Your task to perform on an android device: Go to CNN.com Image 0: 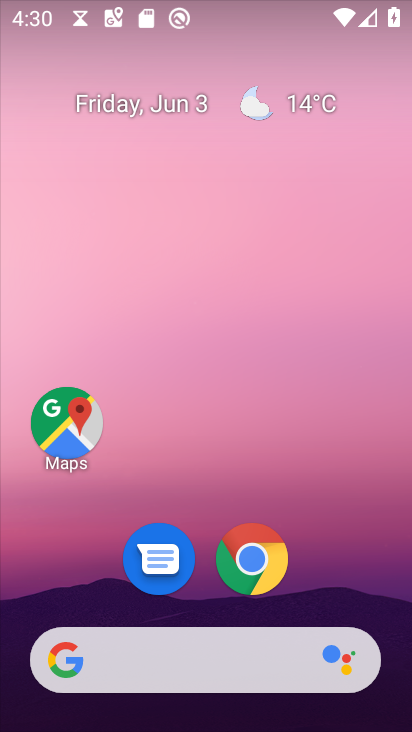
Step 0: click (132, 10)
Your task to perform on an android device: Go to CNN.com Image 1: 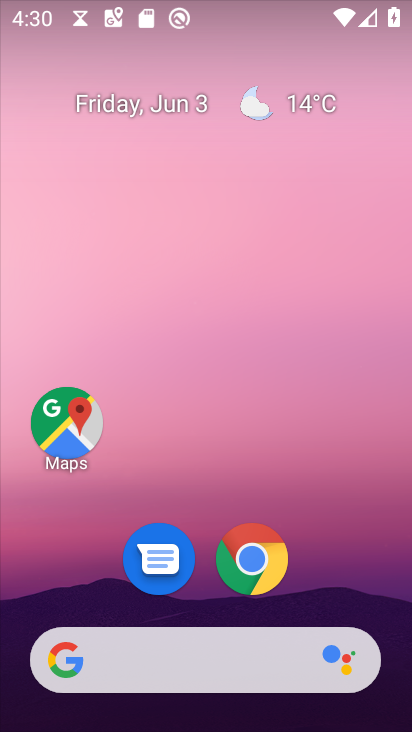
Step 1: drag from (216, 454) to (118, 9)
Your task to perform on an android device: Go to CNN.com Image 2: 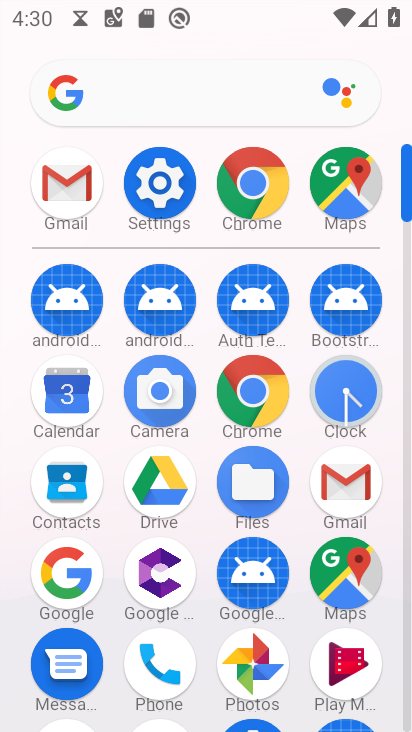
Step 2: click (122, 39)
Your task to perform on an android device: Go to CNN.com Image 3: 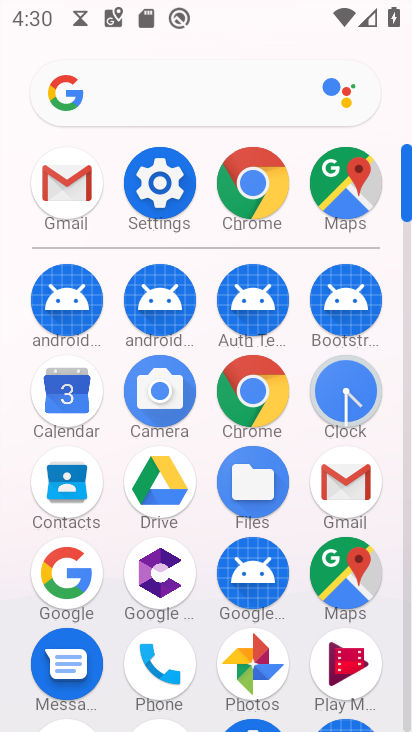
Step 3: click (259, 175)
Your task to perform on an android device: Go to CNN.com Image 4: 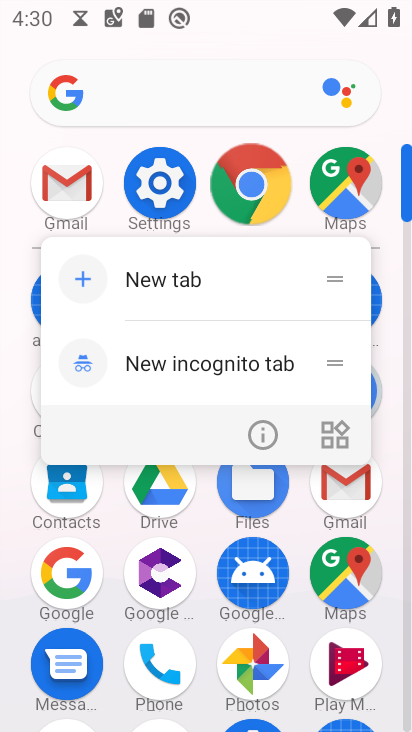
Step 4: click (250, 186)
Your task to perform on an android device: Go to CNN.com Image 5: 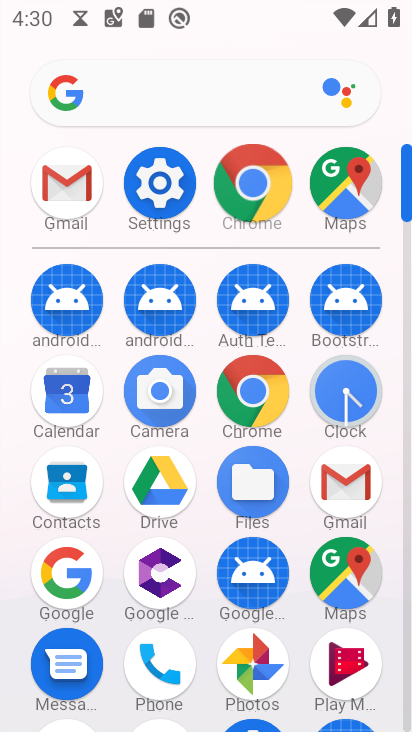
Step 5: click (246, 185)
Your task to perform on an android device: Go to CNN.com Image 6: 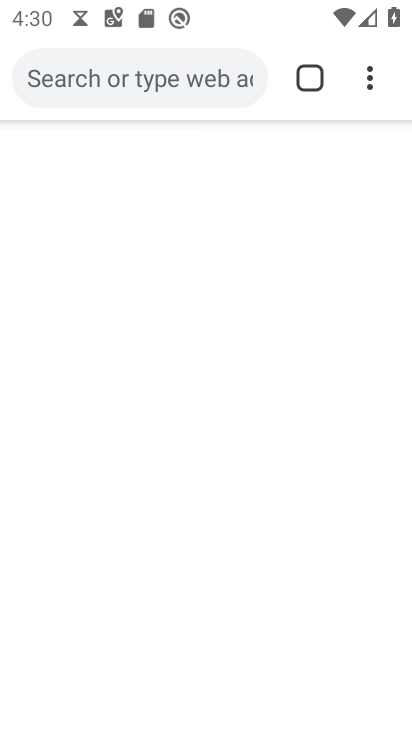
Step 6: click (246, 185)
Your task to perform on an android device: Go to CNN.com Image 7: 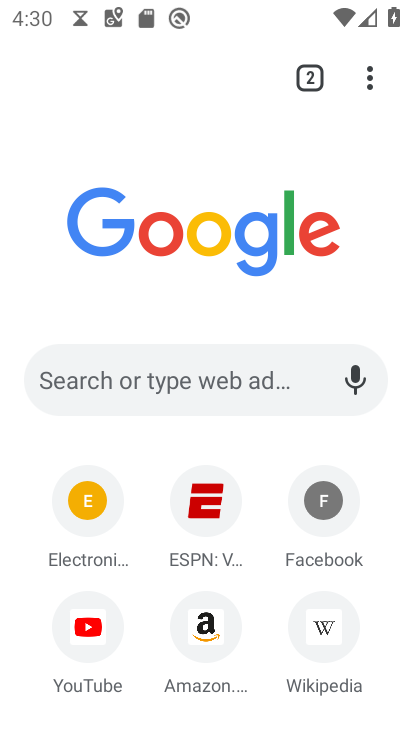
Step 7: click (67, 380)
Your task to perform on an android device: Go to CNN.com Image 8: 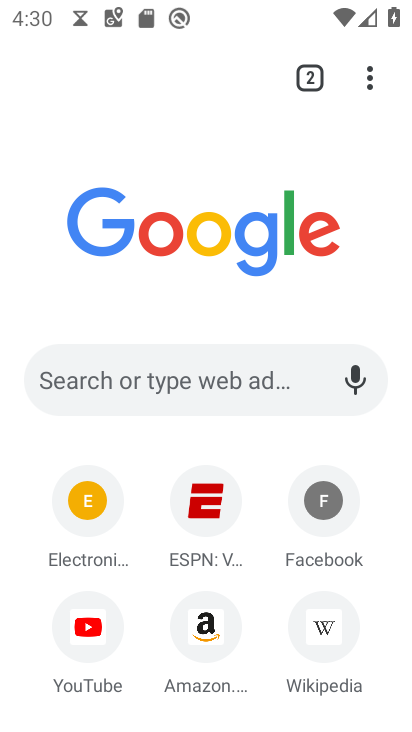
Step 8: click (67, 380)
Your task to perform on an android device: Go to CNN.com Image 9: 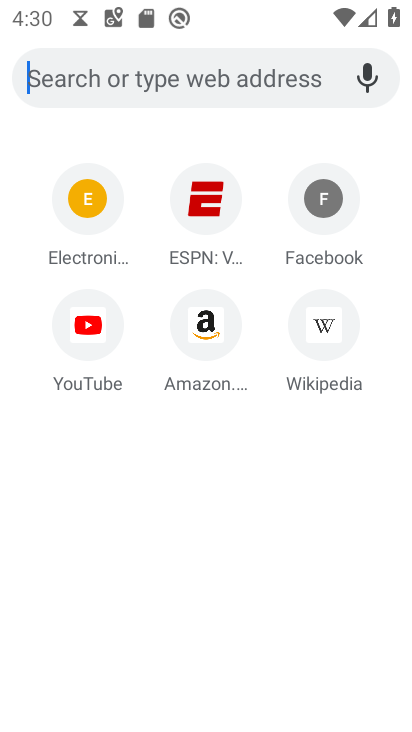
Step 9: click (61, 379)
Your task to perform on an android device: Go to CNN.com Image 10: 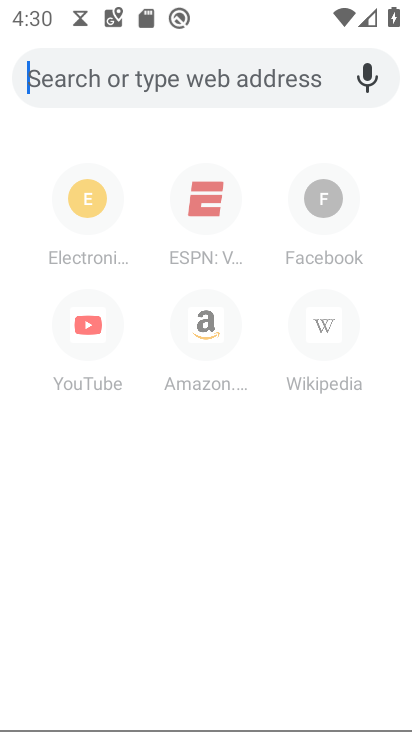
Step 10: click (57, 394)
Your task to perform on an android device: Go to CNN.com Image 11: 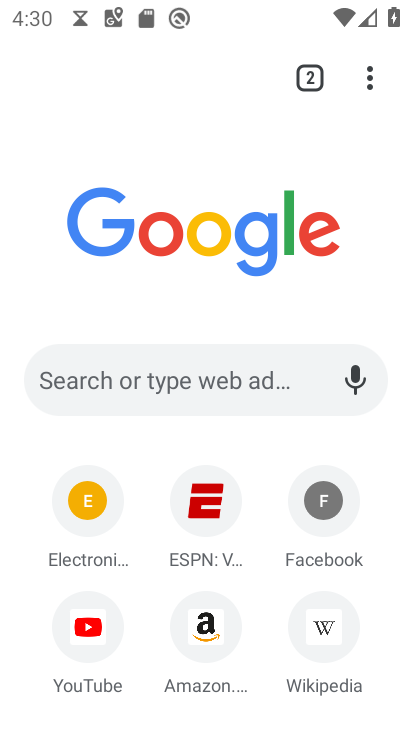
Step 11: click (42, 380)
Your task to perform on an android device: Go to CNN.com Image 12: 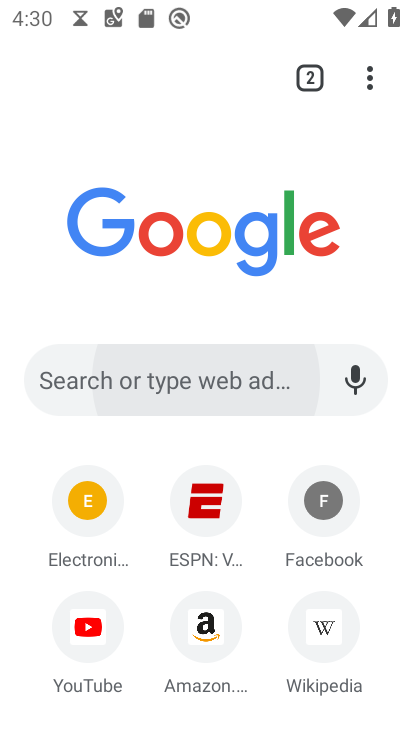
Step 12: click (42, 380)
Your task to perform on an android device: Go to CNN.com Image 13: 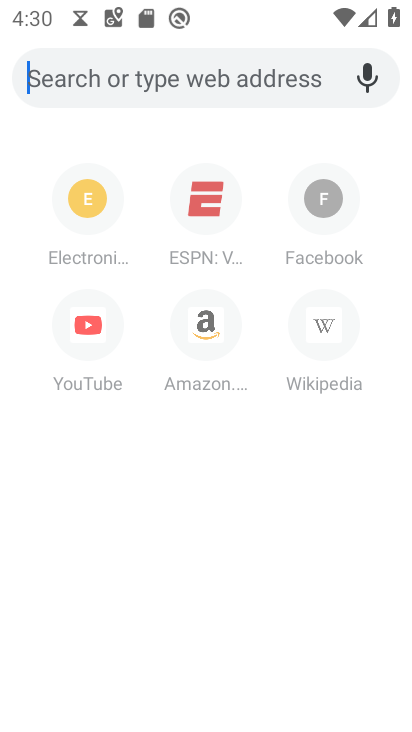
Step 13: click (48, 379)
Your task to perform on an android device: Go to CNN.com Image 14: 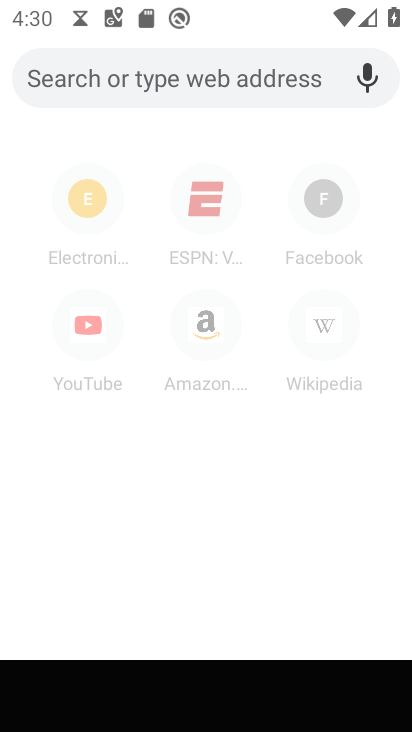
Step 14: click (48, 379)
Your task to perform on an android device: Go to CNN.com Image 15: 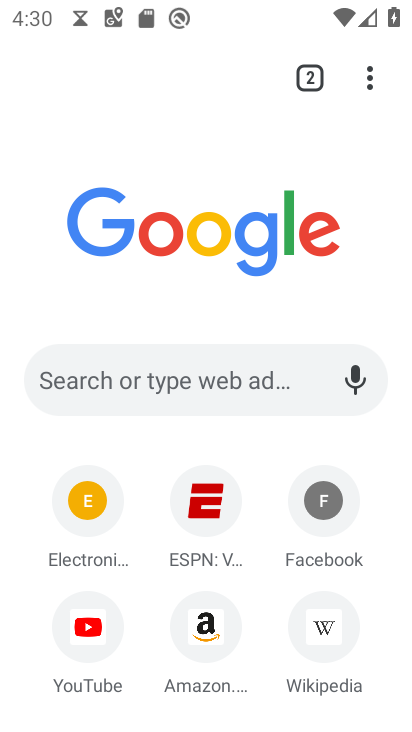
Step 15: click (65, 371)
Your task to perform on an android device: Go to CNN.com Image 16: 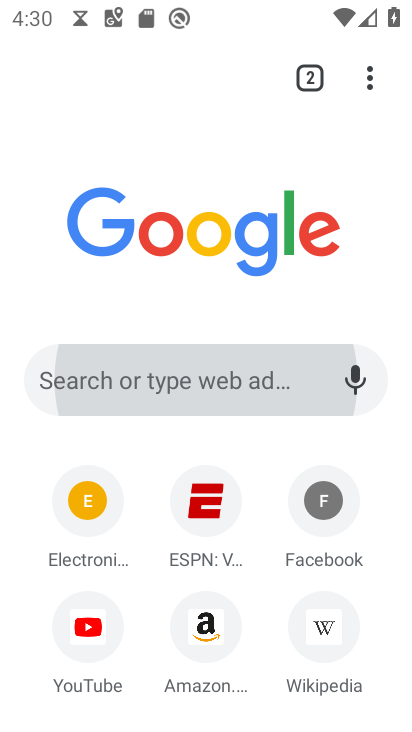
Step 16: click (64, 372)
Your task to perform on an android device: Go to CNN.com Image 17: 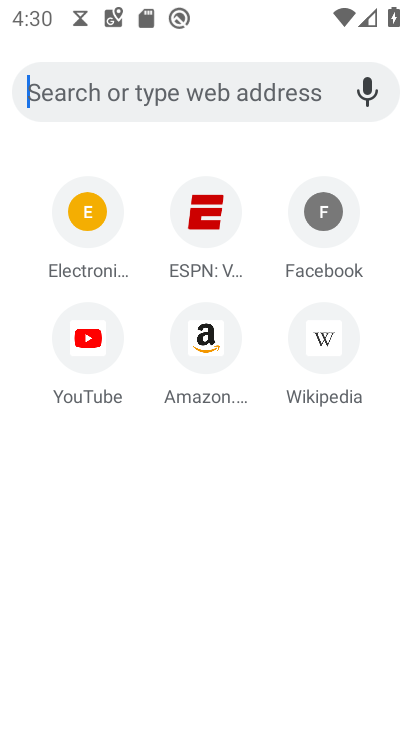
Step 17: click (62, 372)
Your task to perform on an android device: Go to CNN.com Image 18: 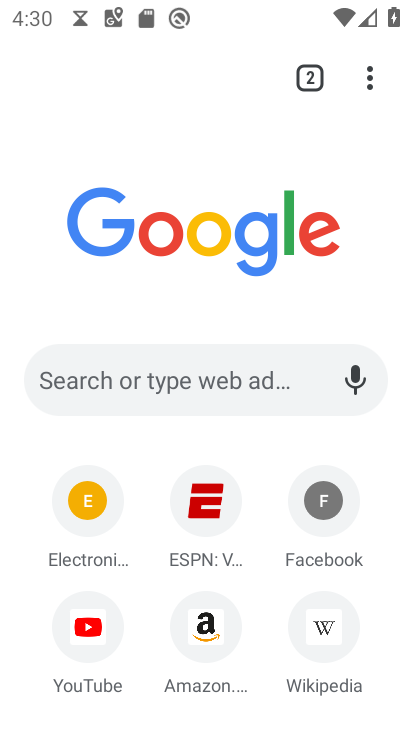
Step 18: click (58, 380)
Your task to perform on an android device: Go to CNN.com Image 19: 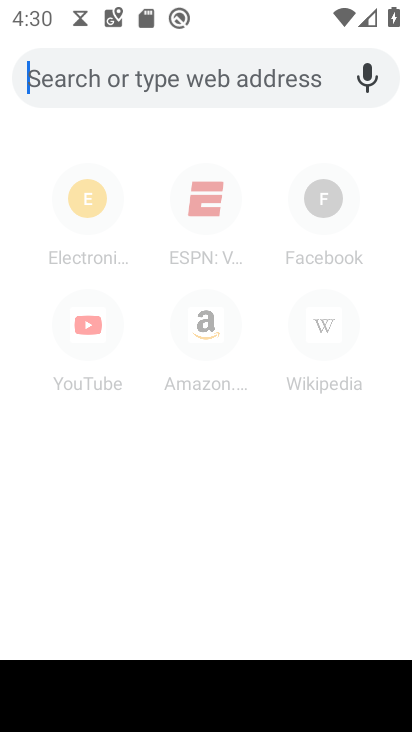
Step 19: type "Cnn.com"
Your task to perform on an android device: Go to CNN.com Image 20: 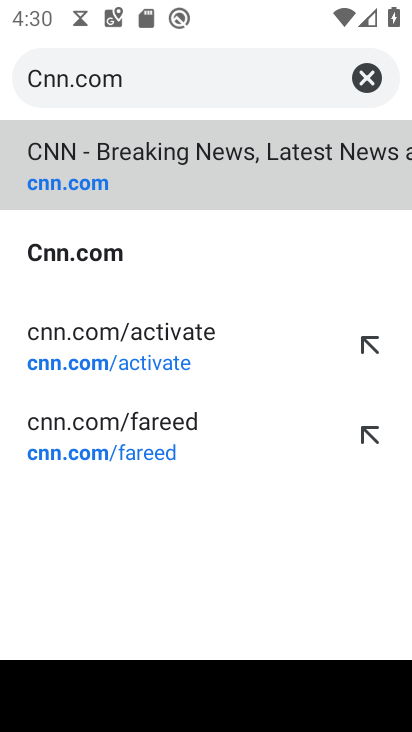
Step 20: click (79, 182)
Your task to perform on an android device: Go to CNN.com Image 21: 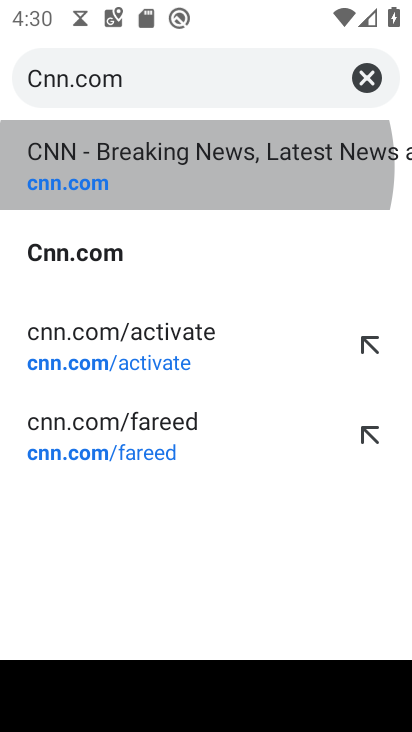
Step 21: click (79, 182)
Your task to perform on an android device: Go to CNN.com Image 22: 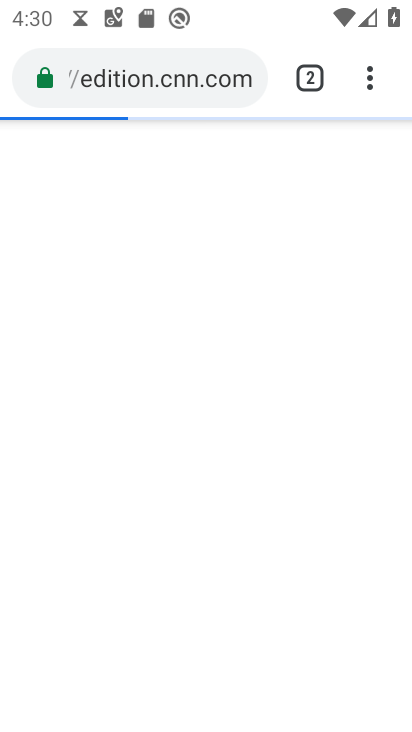
Step 22: task complete